Your task to perform on an android device: uninstall "Indeed Job Search" Image 0: 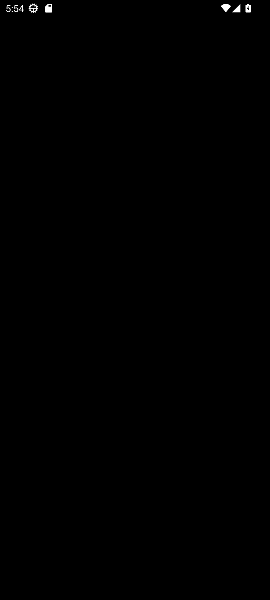
Step 0: press home button
Your task to perform on an android device: uninstall "Indeed Job Search" Image 1: 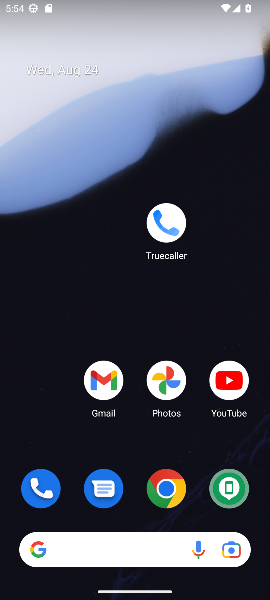
Step 1: drag from (139, 511) to (143, 136)
Your task to perform on an android device: uninstall "Indeed Job Search" Image 2: 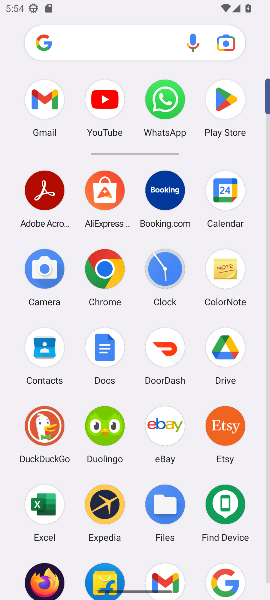
Step 2: click (231, 100)
Your task to perform on an android device: uninstall "Indeed Job Search" Image 3: 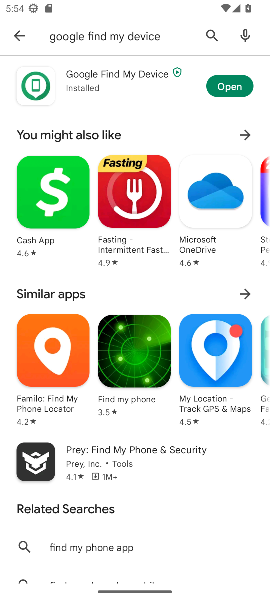
Step 3: click (201, 38)
Your task to perform on an android device: uninstall "Indeed Job Search" Image 4: 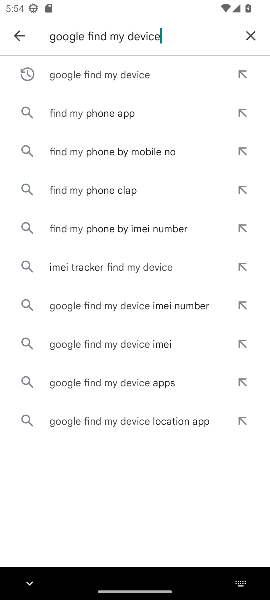
Step 4: click (242, 37)
Your task to perform on an android device: uninstall "Indeed Job Search" Image 5: 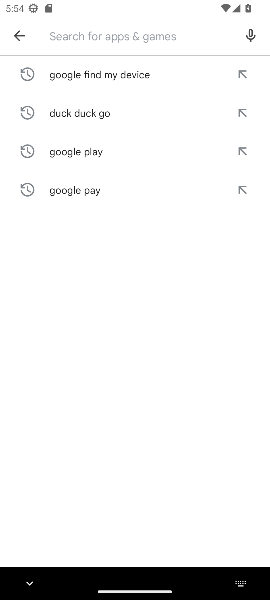
Step 5: type "indeed"
Your task to perform on an android device: uninstall "Indeed Job Search" Image 6: 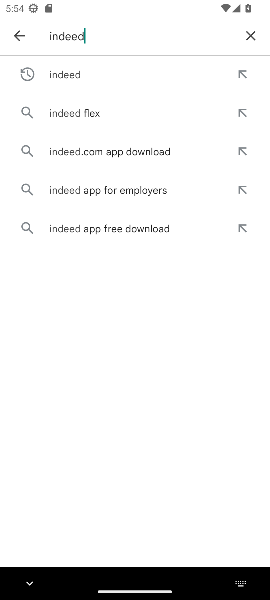
Step 6: click (125, 76)
Your task to perform on an android device: uninstall "Indeed Job Search" Image 7: 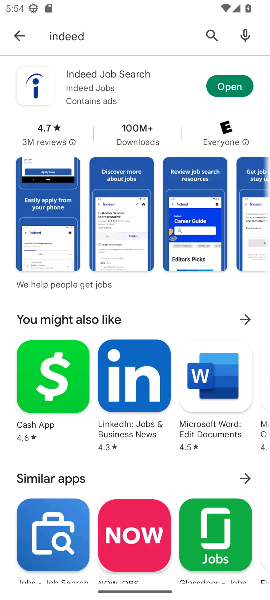
Step 7: click (219, 93)
Your task to perform on an android device: uninstall "Indeed Job Search" Image 8: 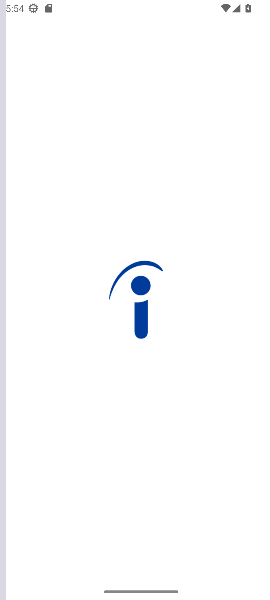
Step 8: task complete